Your task to perform on an android device: Turn off the flashlight Image 0: 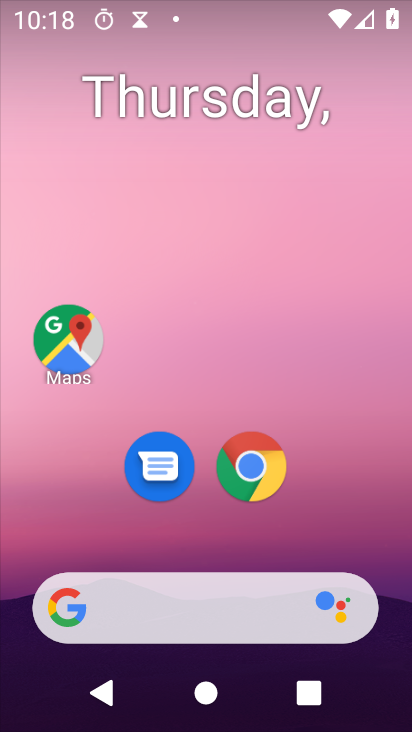
Step 0: drag from (259, 3) to (145, 300)
Your task to perform on an android device: Turn off the flashlight Image 1: 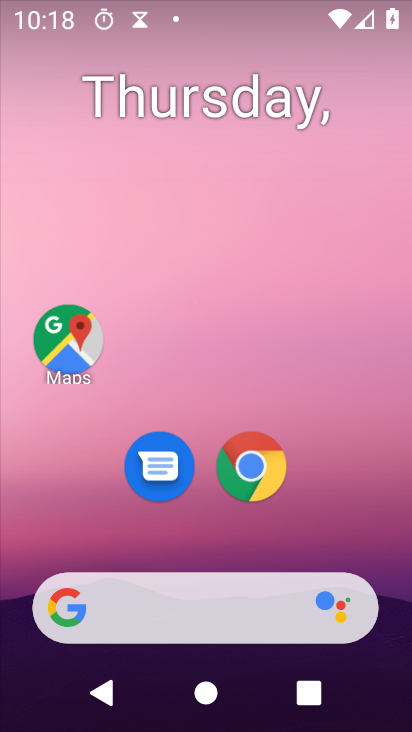
Step 1: task complete